Your task to perform on an android device: toggle pop-ups in chrome Image 0: 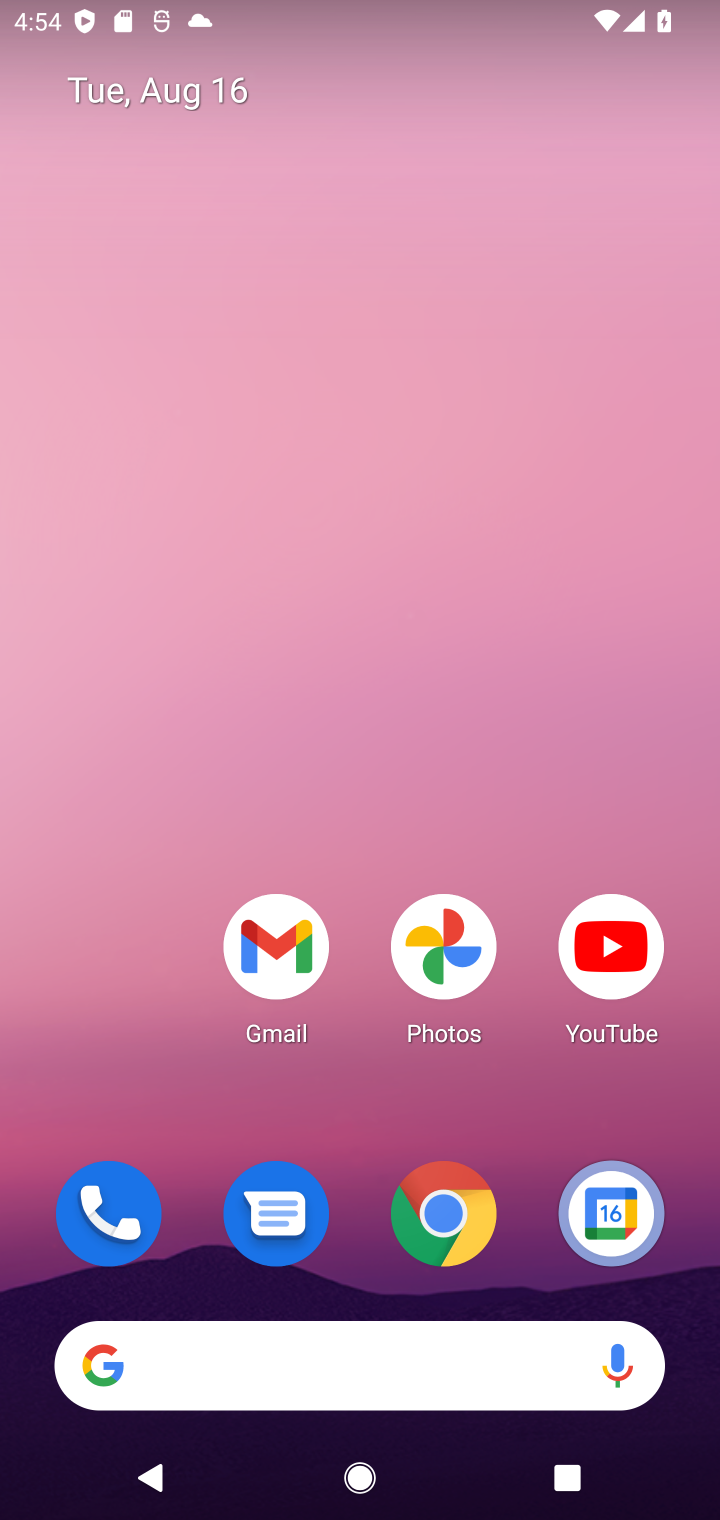
Step 0: click (447, 1217)
Your task to perform on an android device: toggle pop-ups in chrome Image 1: 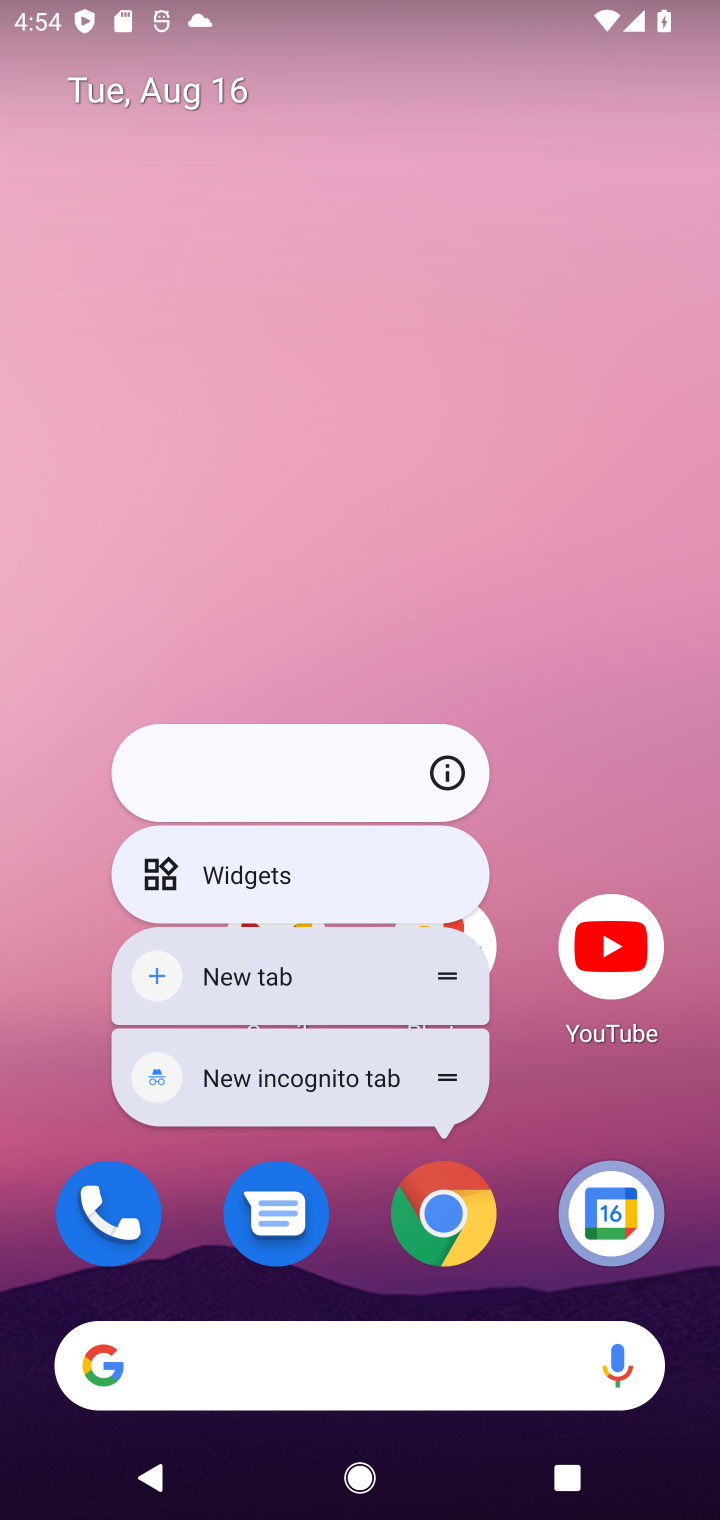
Step 1: click (462, 1239)
Your task to perform on an android device: toggle pop-ups in chrome Image 2: 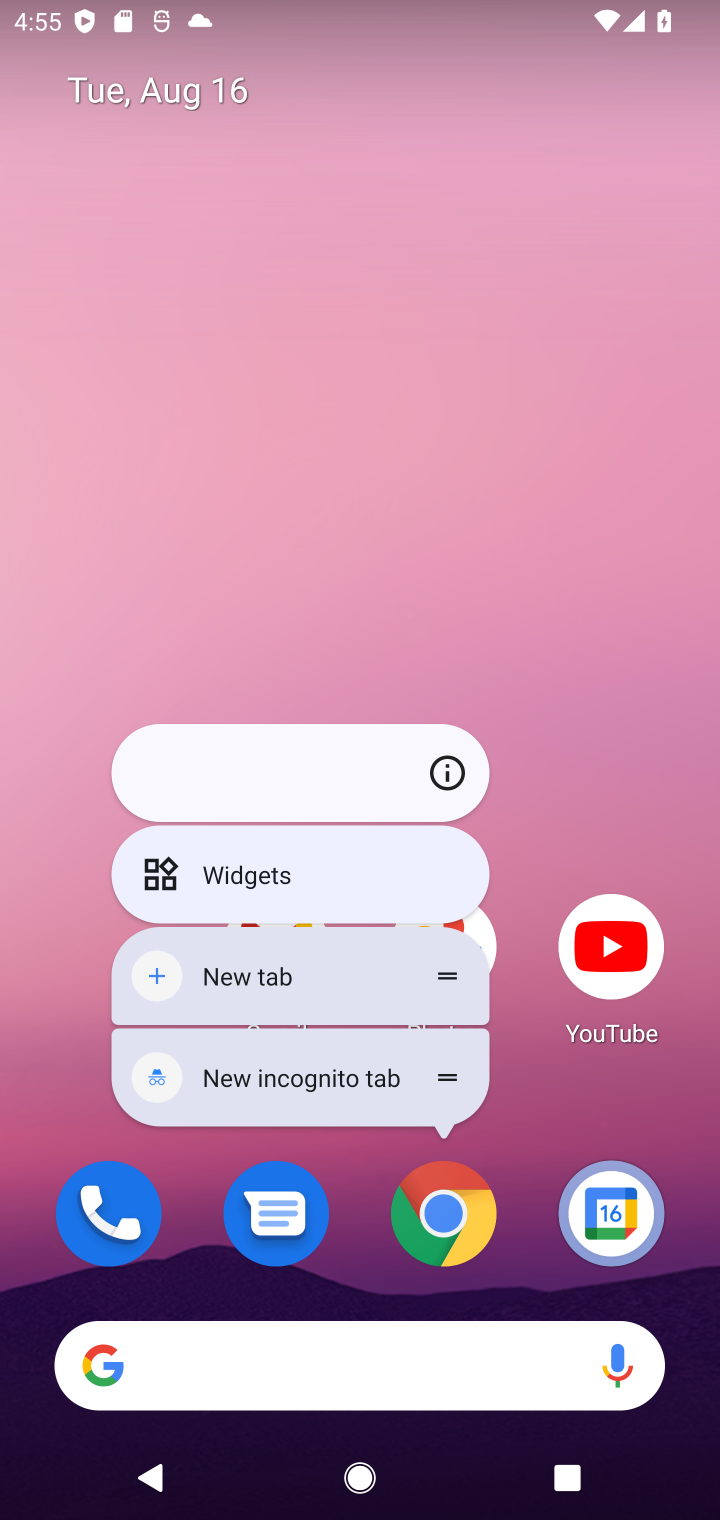
Step 2: click (455, 1214)
Your task to perform on an android device: toggle pop-ups in chrome Image 3: 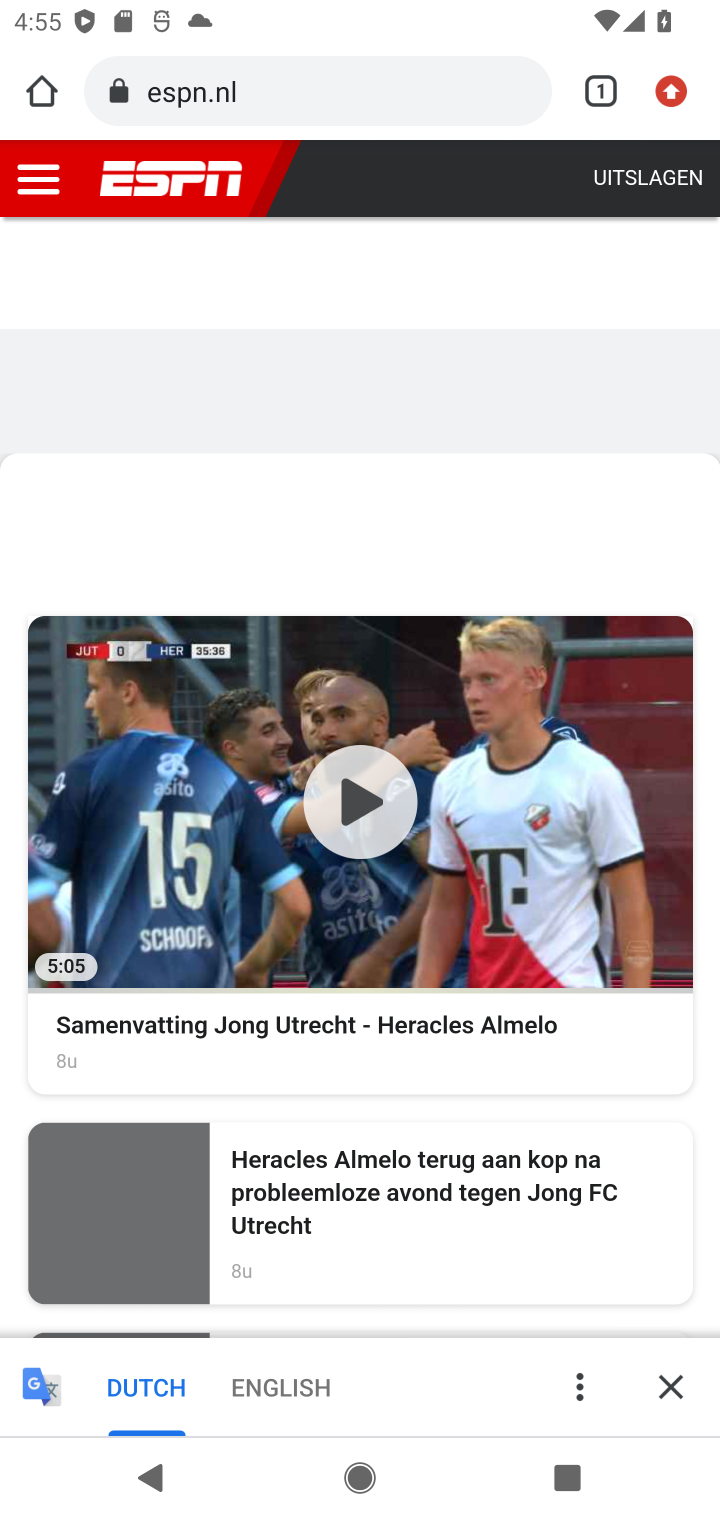
Step 3: drag from (703, 79) to (422, 1256)
Your task to perform on an android device: toggle pop-ups in chrome Image 4: 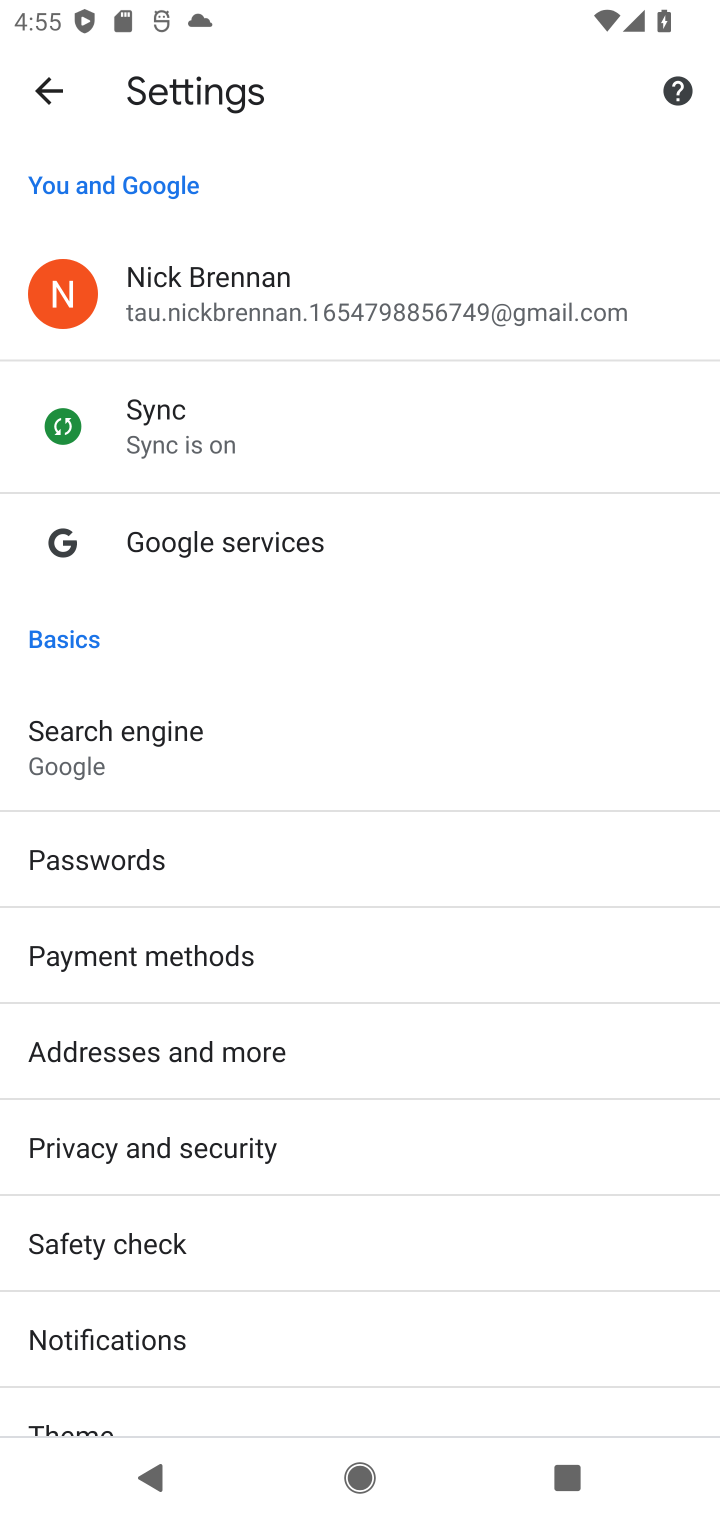
Step 4: drag from (418, 1235) to (528, 434)
Your task to perform on an android device: toggle pop-ups in chrome Image 5: 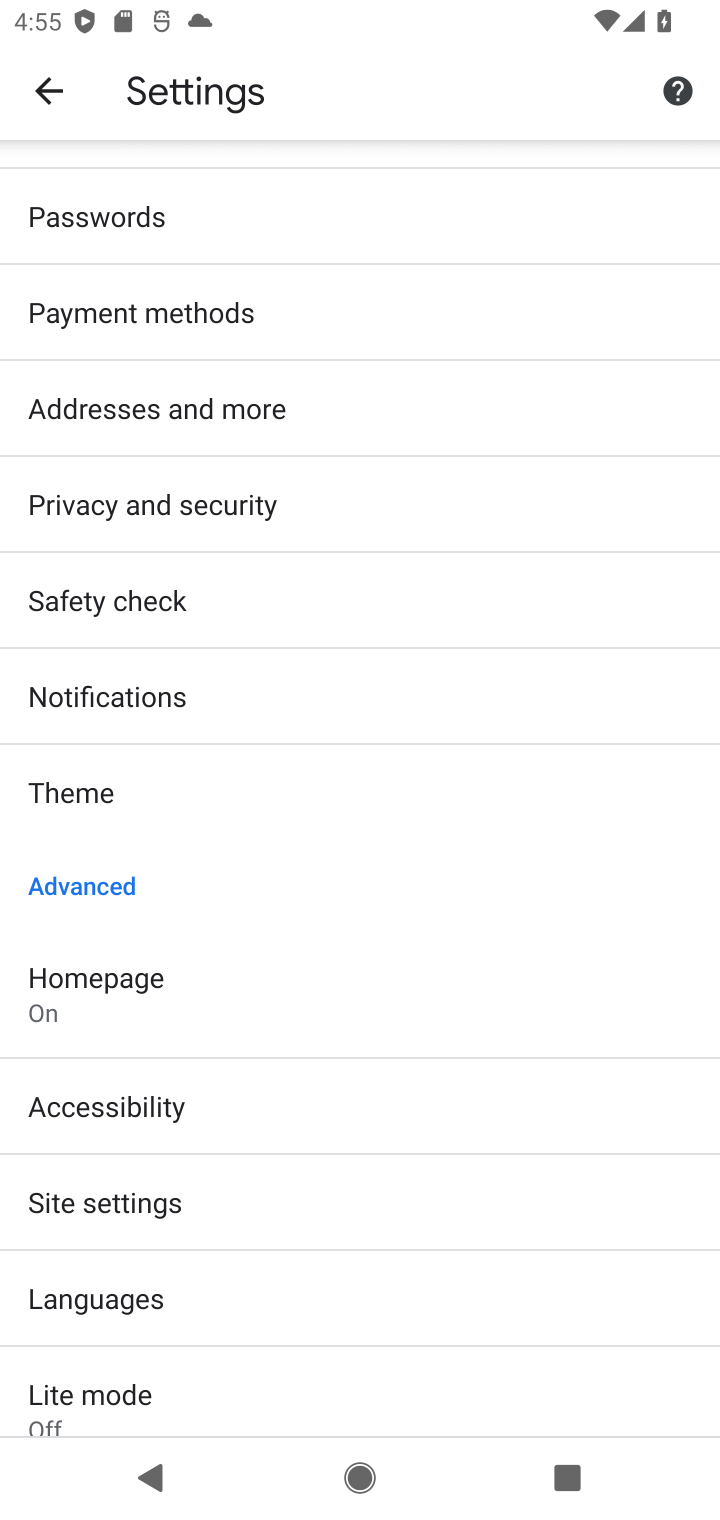
Step 5: click (101, 1203)
Your task to perform on an android device: toggle pop-ups in chrome Image 6: 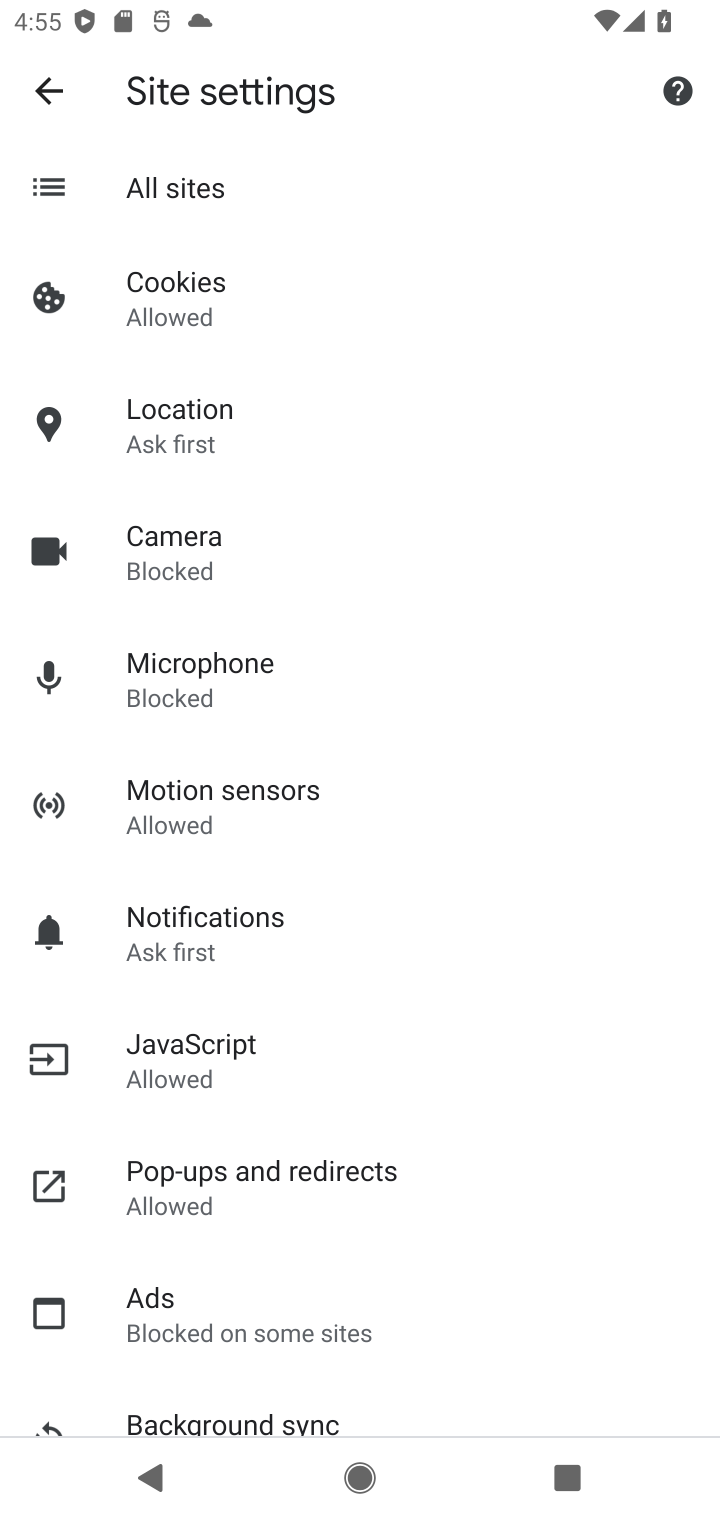
Step 6: click (210, 1162)
Your task to perform on an android device: toggle pop-ups in chrome Image 7: 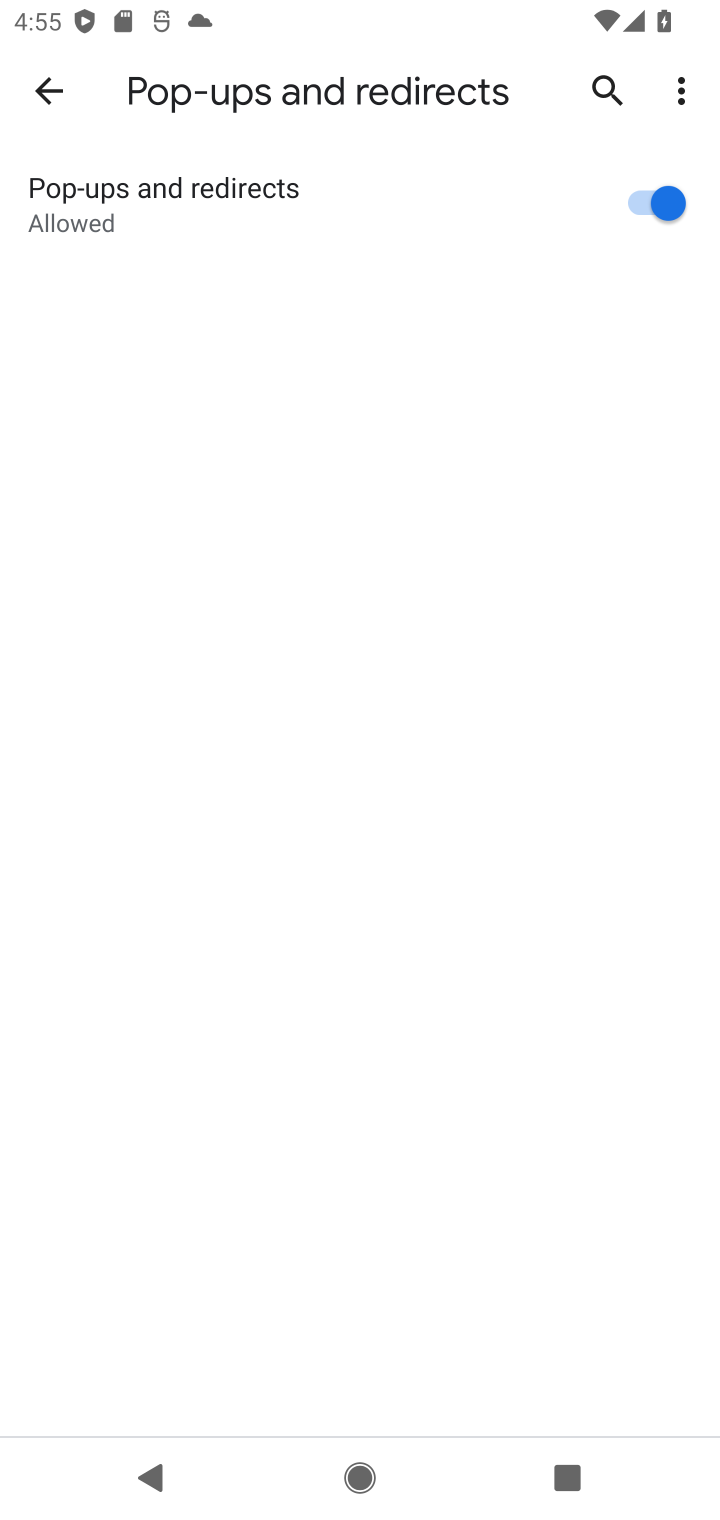
Step 7: click (619, 213)
Your task to perform on an android device: toggle pop-ups in chrome Image 8: 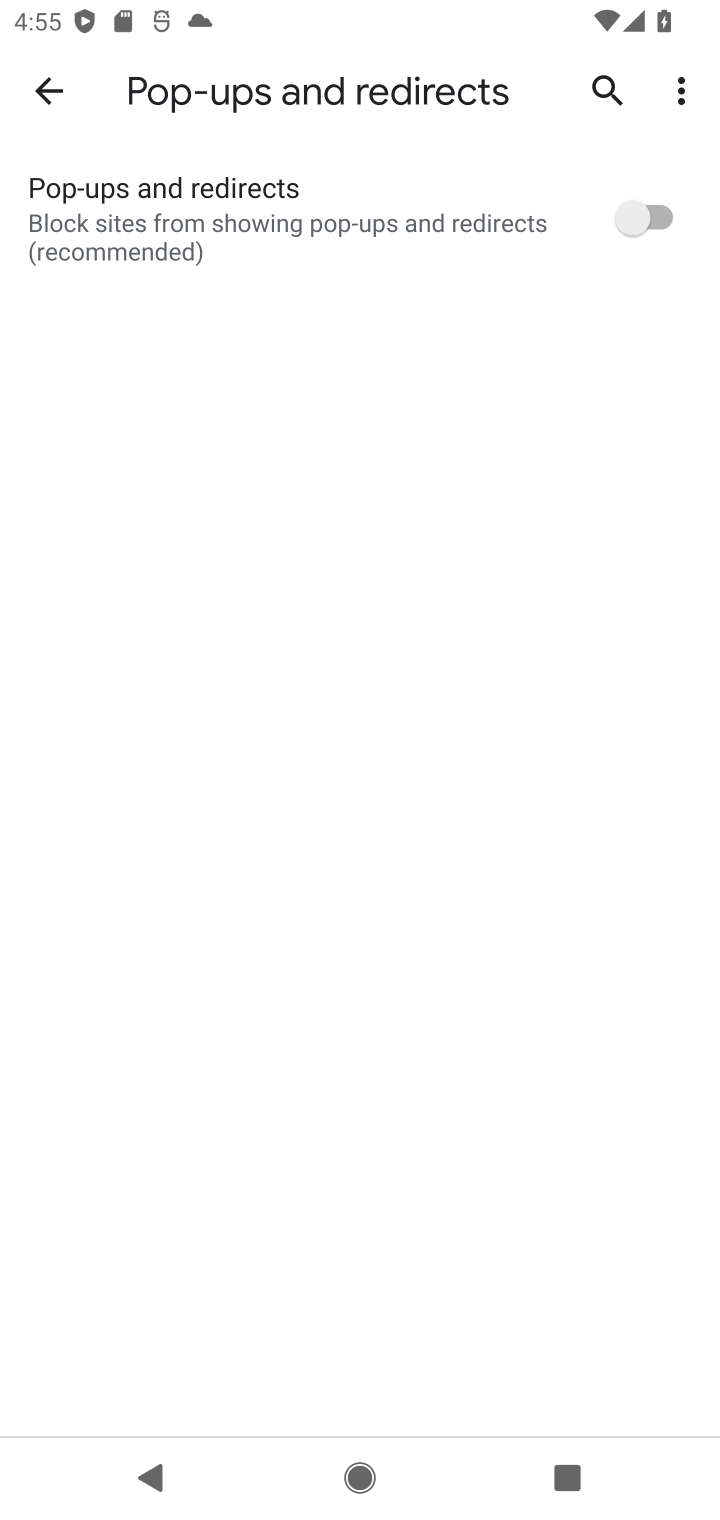
Step 8: task complete